Your task to perform on an android device: Open location settings Image 0: 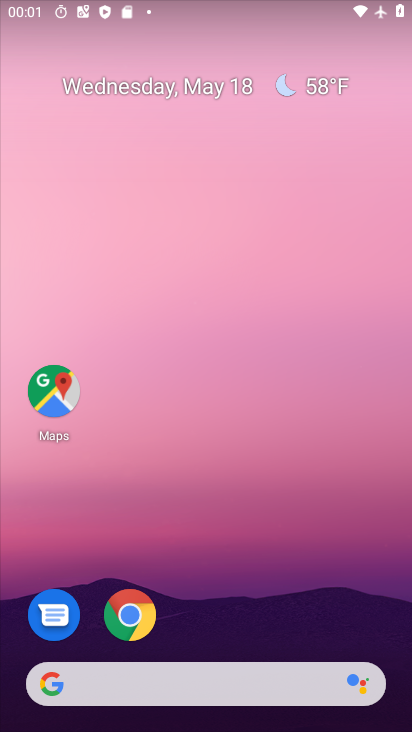
Step 0: drag from (229, 615) to (258, 135)
Your task to perform on an android device: Open location settings Image 1: 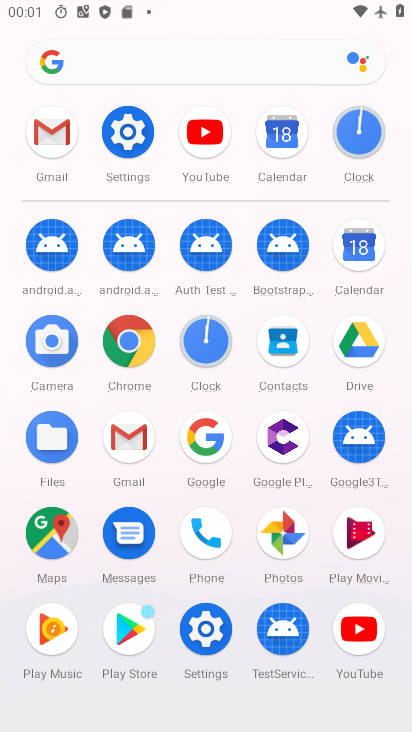
Step 1: click (123, 127)
Your task to perform on an android device: Open location settings Image 2: 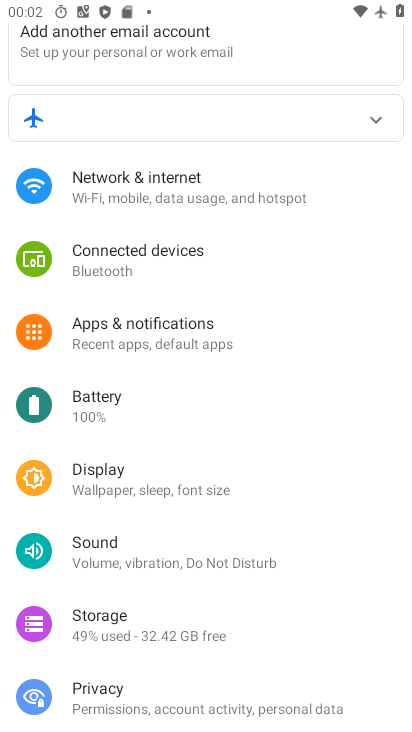
Step 2: drag from (187, 660) to (209, 339)
Your task to perform on an android device: Open location settings Image 3: 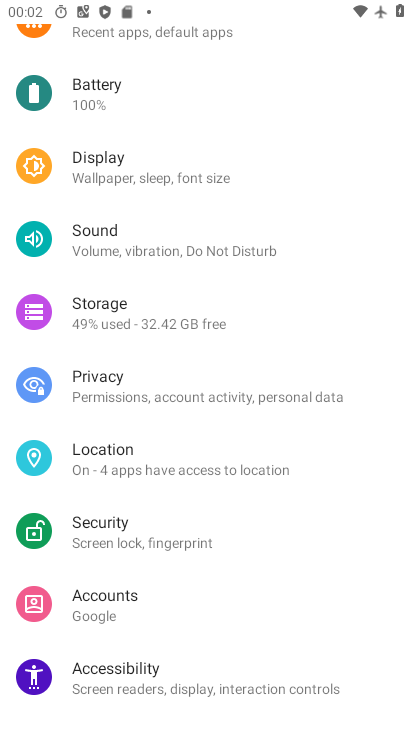
Step 3: click (199, 464)
Your task to perform on an android device: Open location settings Image 4: 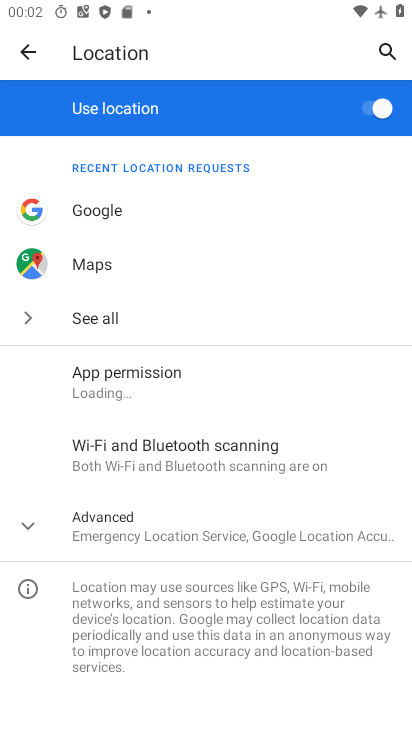
Step 4: task complete